Your task to perform on an android device: turn pop-ups on in chrome Image 0: 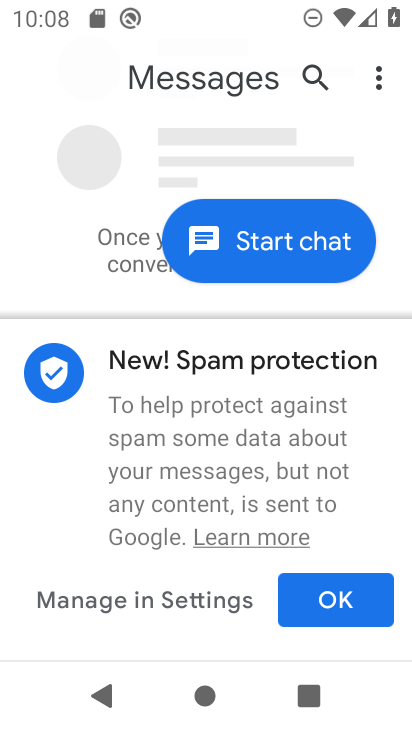
Step 0: press home button
Your task to perform on an android device: turn pop-ups on in chrome Image 1: 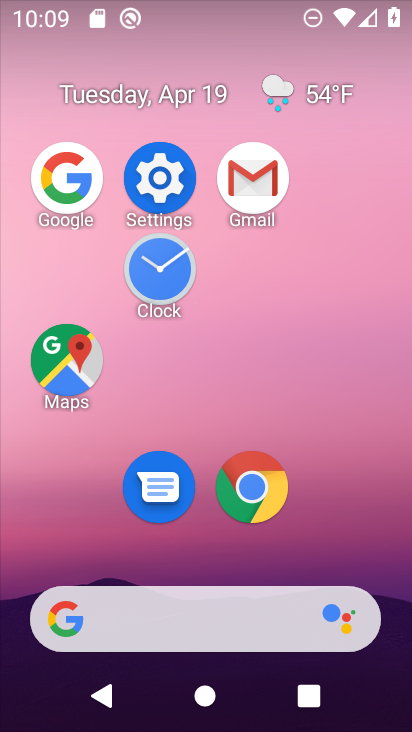
Step 1: click (250, 500)
Your task to perform on an android device: turn pop-ups on in chrome Image 2: 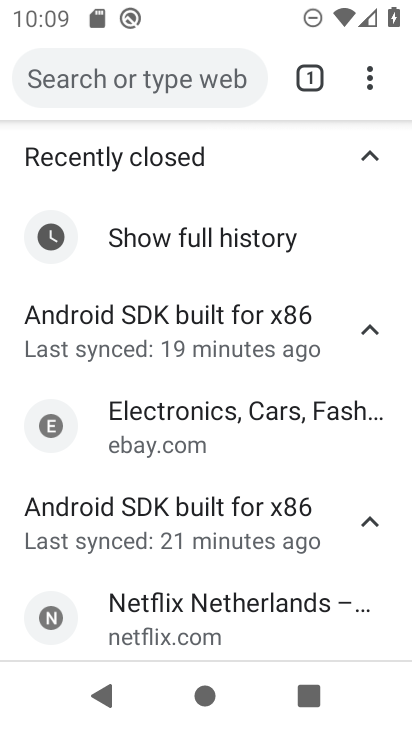
Step 2: click (371, 73)
Your task to perform on an android device: turn pop-ups on in chrome Image 3: 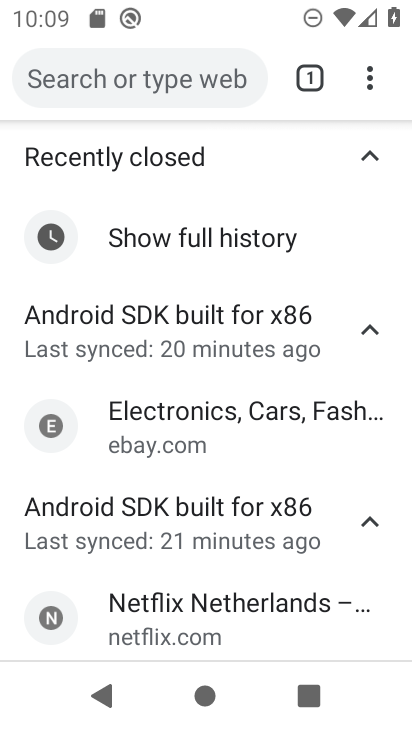
Step 3: click (375, 70)
Your task to perform on an android device: turn pop-ups on in chrome Image 4: 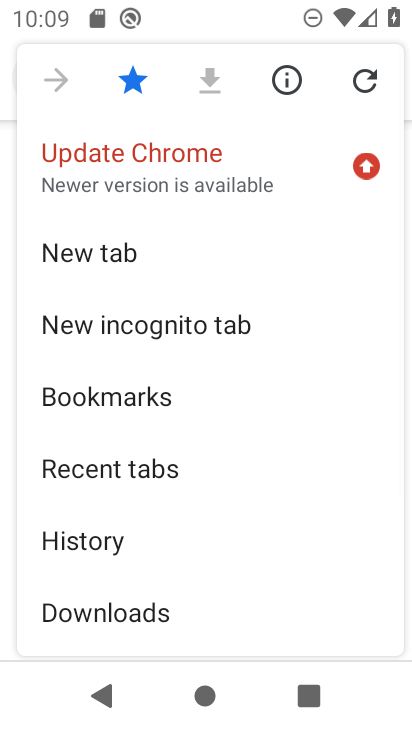
Step 4: drag from (248, 542) to (218, 85)
Your task to perform on an android device: turn pop-ups on in chrome Image 5: 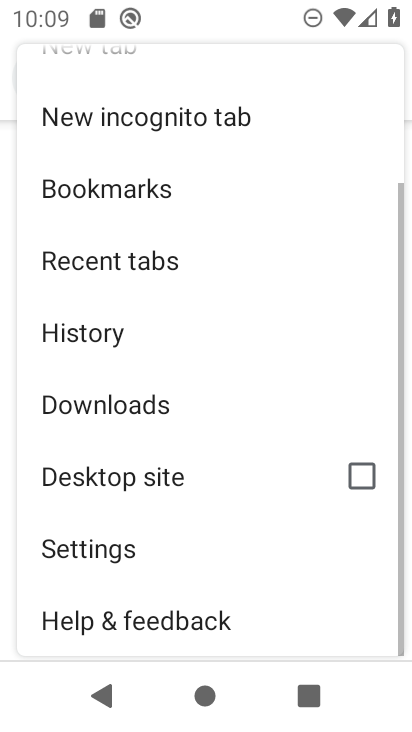
Step 5: click (162, 540)
Your task to perform on an android device: turn pop-ups on in chrome Image 6: 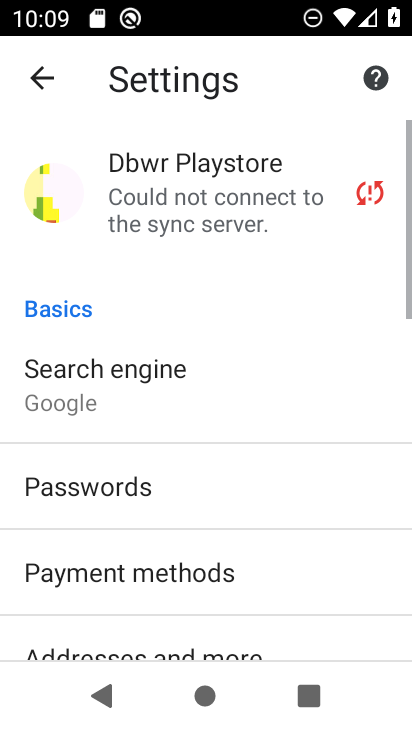
Step 6: drag from (162, 528) to (188, 107)
Your task to perform on an android device: turn pop-ups on in chrome Image 7: 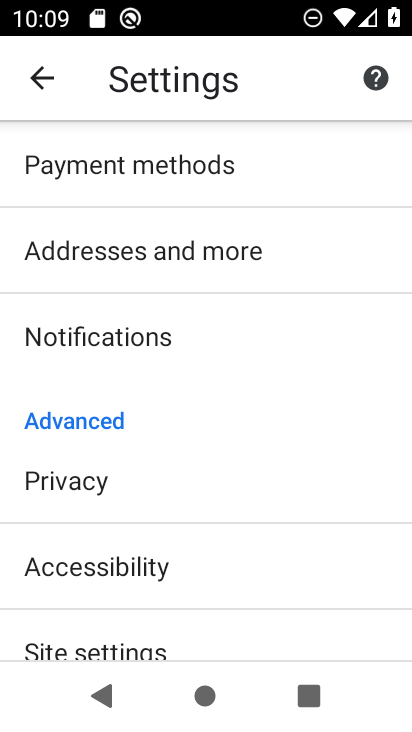
Step 7: drag from (155, 630) to (183, 186)
Your task to perform on an android device: turn pop-ups on in chrome Image 8: 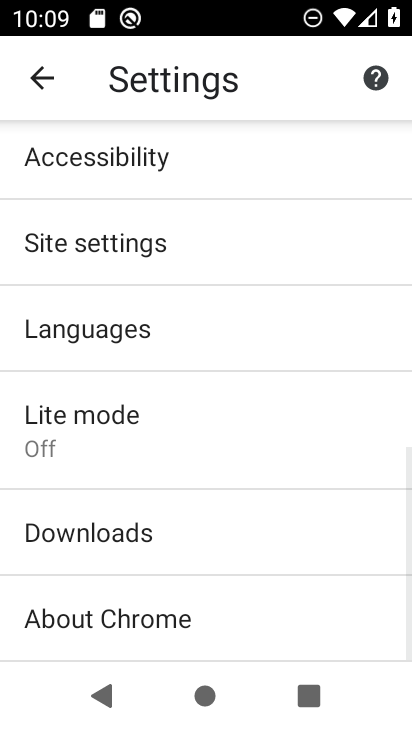
Step 8: click (176, 258)
Your task to perform on an android device: turn pop-ups on in chrome Image 9: 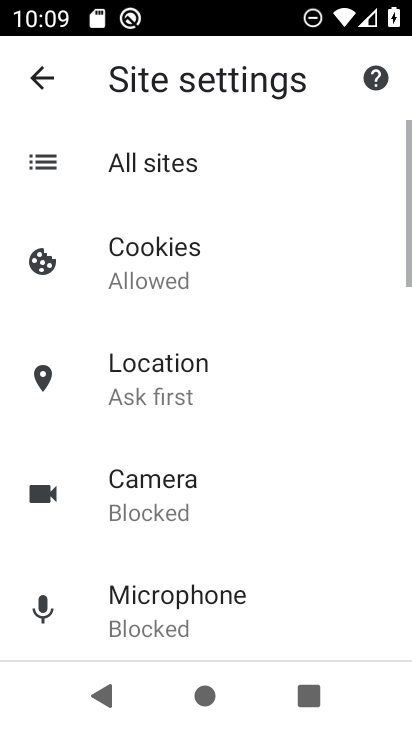
Step 9: drag from (281, 560) to (286, 155)
Your task to perform on an android device: turn pop-ups on in chrome Image 10: 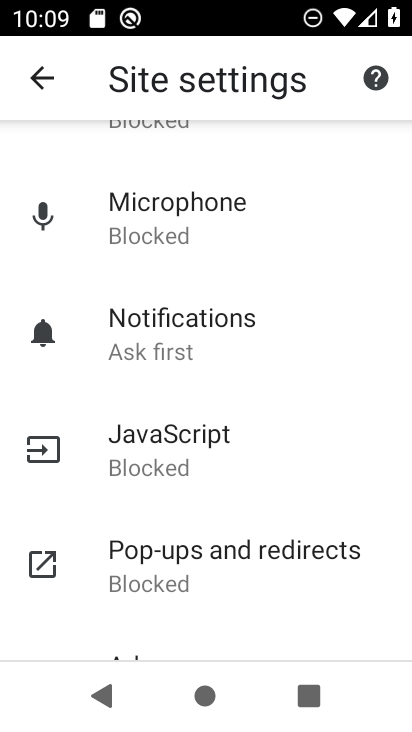
Step 10: drag from (251, 582) to (280, 279)
Your task to perform on an android device: turn pop-ups on in chrome Image 11: 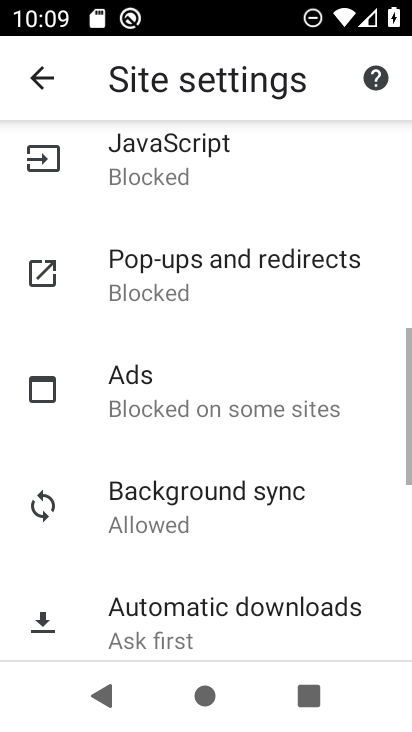
Step 11: click (280, 286)
Your task to perform on an android device: turn pop-ups on in chrome Image 12: 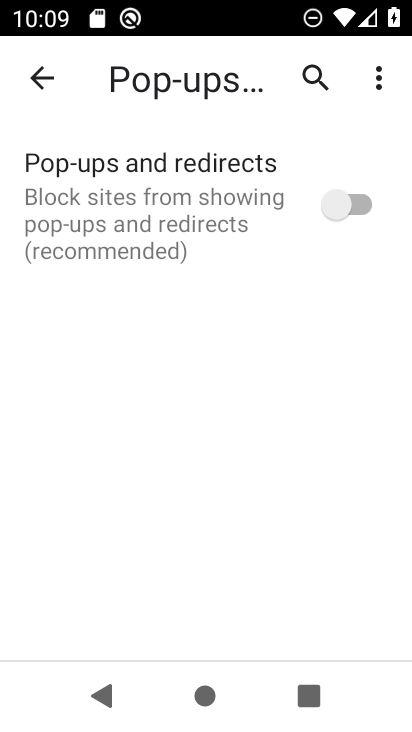
Step 12: click (333, 205)
Your task to perform on an android device: turn pop-ups on in chrome Image 13: 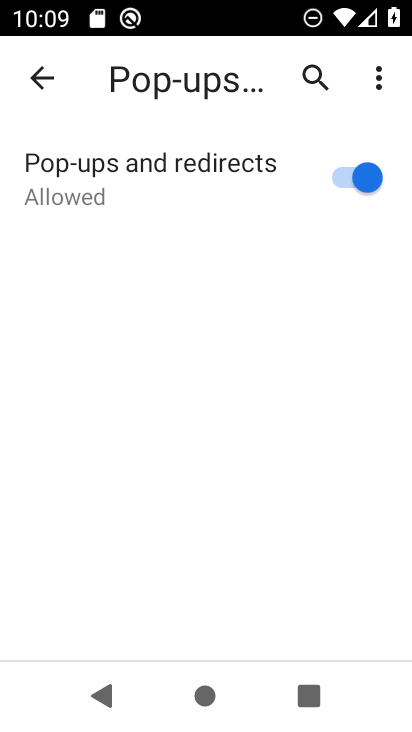
Step 13: task complete